Your task to perform on an android device: turn off notifications settings in the gmail app Image 0: 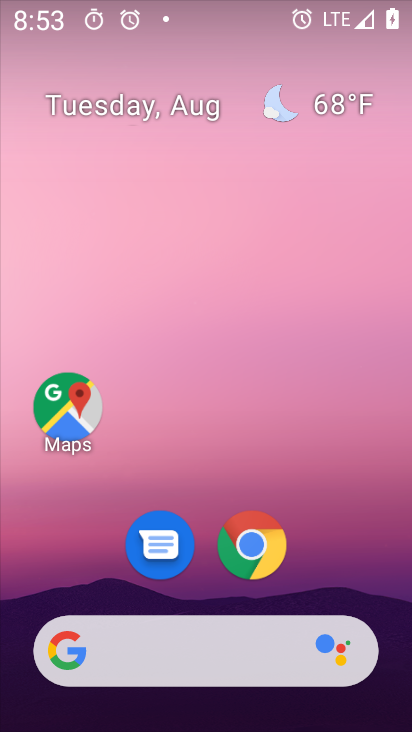
Step 0: drag from (233, 581) to (239, 124)
Your task to perform on an android device: turn off notifications settings in the gmail app Image 1: 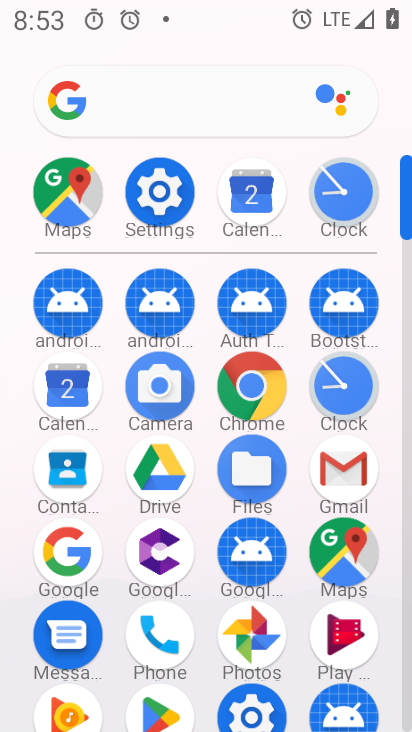
Step 1: click (341, 465)
Your task to perform on an android device: turn off notifications settings in the gmail app Image 2: 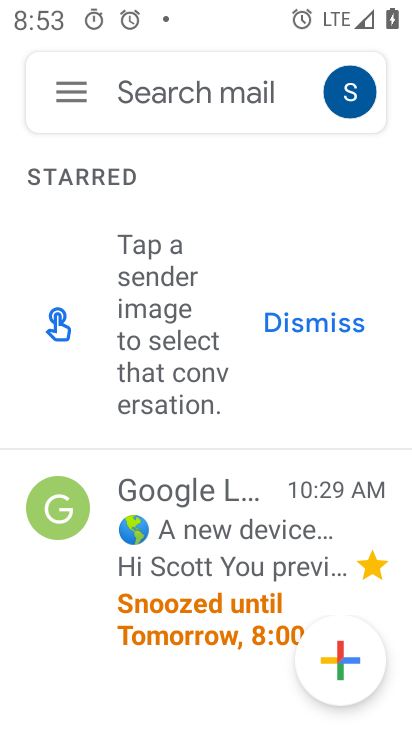
Step 2: click (59, 105)
Your task to perform on an android device: turn off notifications settings in the gmail app Image 3: 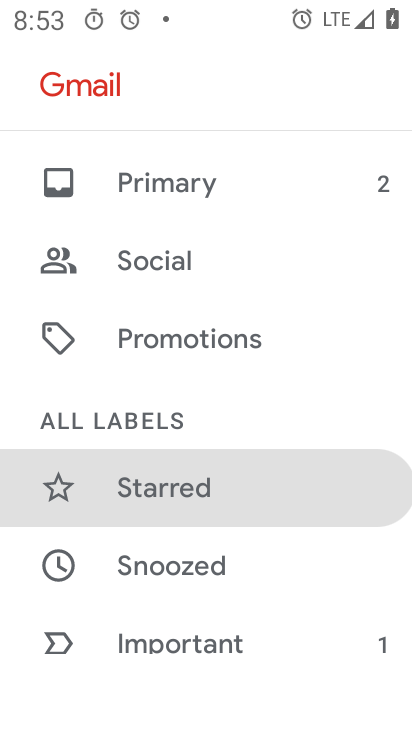
Step 3: drag from (151, 551) to (172, 31)
Your task to perform on an android device: turn off notifications settings in the gmail app Image 4: 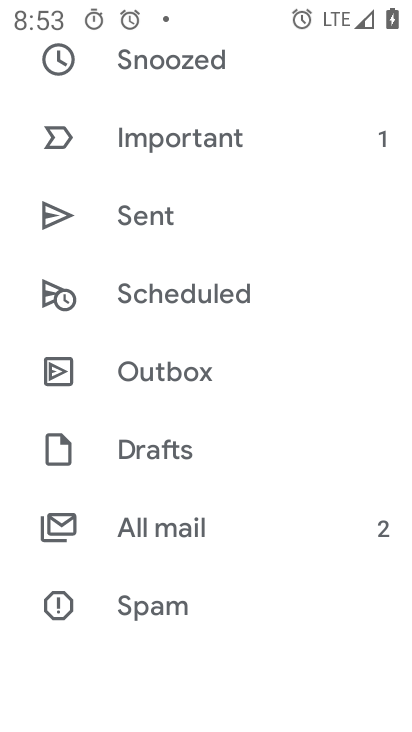
Step 4: drag from (100, 556) to (162, 111)
Your task to perform on an android device: turn off notifications settings in the gmail app Image 5: 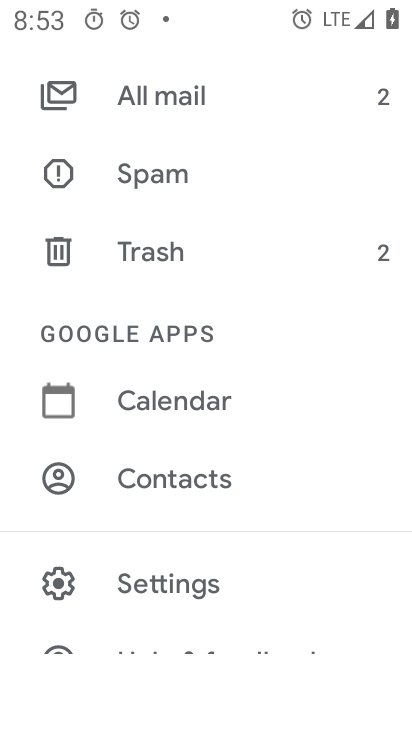
Step 5: click (133, 586)
Your task to perform on an android device: turn off notifications settings in the gmail app Image 6: 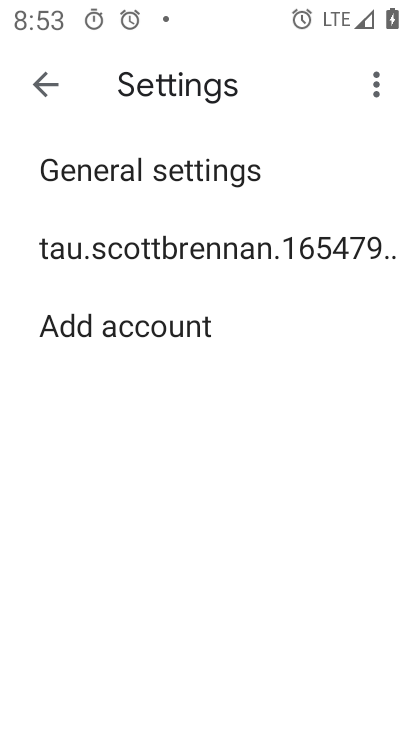
Step 6: click (128, 172)
Your task to perform on an android device: turn off notifications settings in the gmail app Image 7: 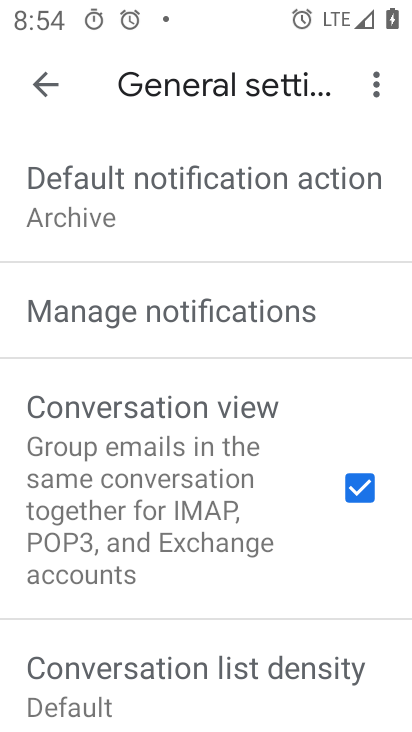
Step 7: click (130, 307)
Your task to perform on an android device: turn off notifications settings in the gmail app Image 8: 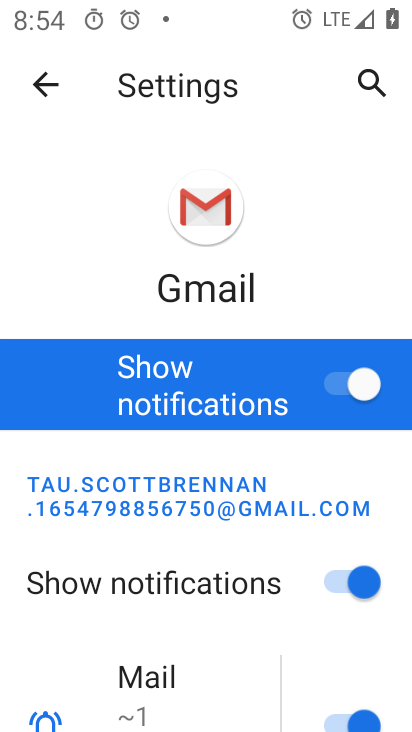
Step 8: click (326, 382)
Your task to perform on an android device: turn off notifications settings in the gmail app Image 9: 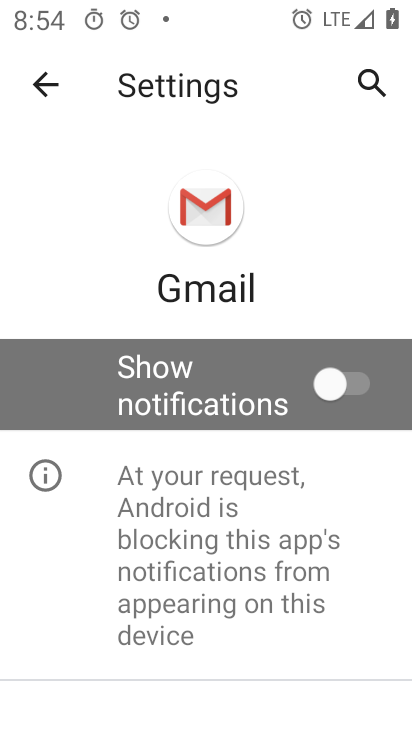
Step 9: task complete